Your task to perform on an android device: Open the calendar and show me this week's events? Image 0: 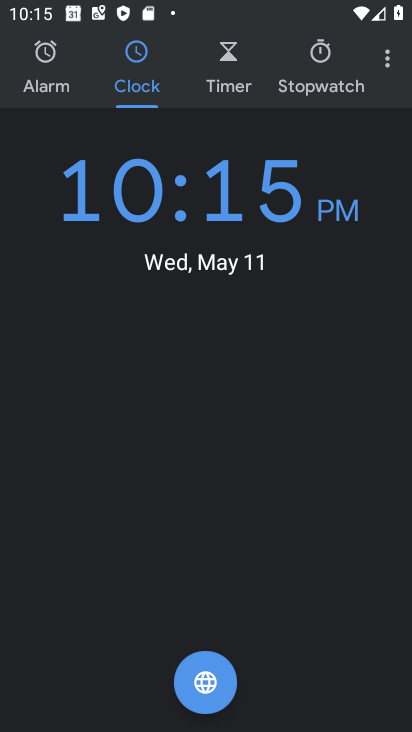
Step 0: press home button
Your task to perform on an android device: Open the calendar and show me this week's events? Image 1: 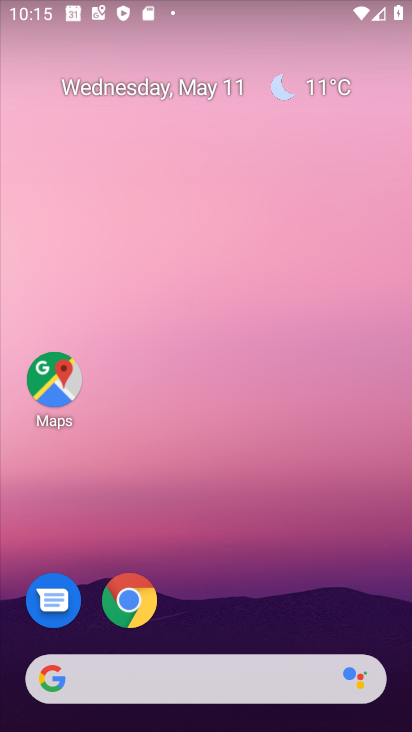
Step 1: drag from (305, 570) to (270, 184)
Your task to perform on an android device: Open the calendar and show me this week's events? Image 2: 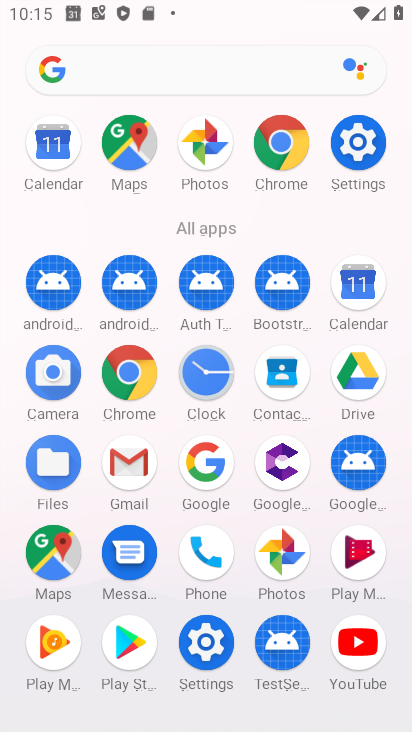
Step 2: click (361, 280)
Your task to perform on an android device: Open the calendar and show me this week's events? Image 3: 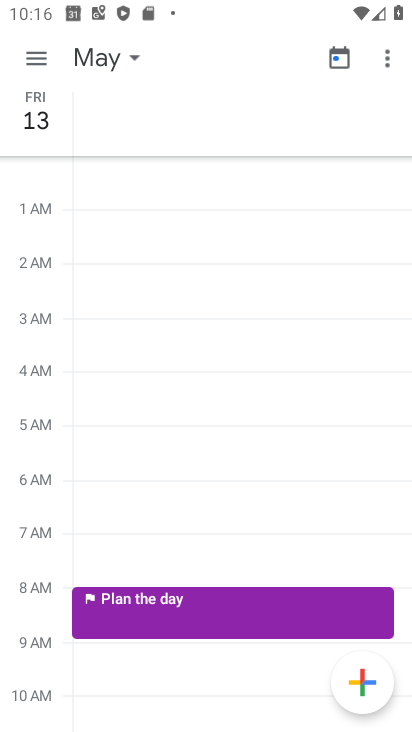
Step 3: click (43, 57)
Your task to perform on an android device: Open the calendar and show me this week's events? Image 4: 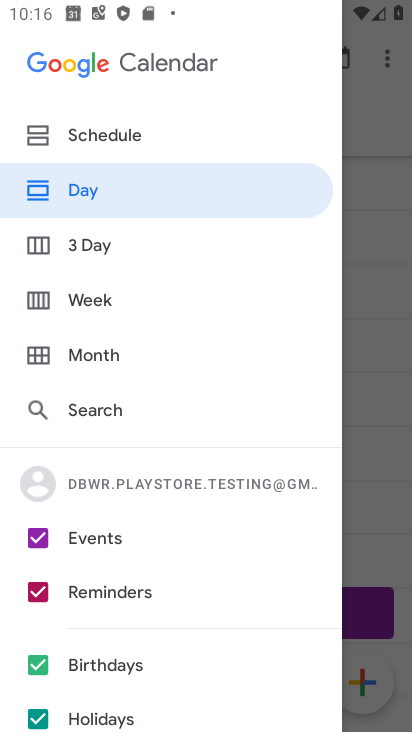
Step 4: click (73, 292)
Your task to perform on an android device: Open the calendar and show me this week's events? Image 5: 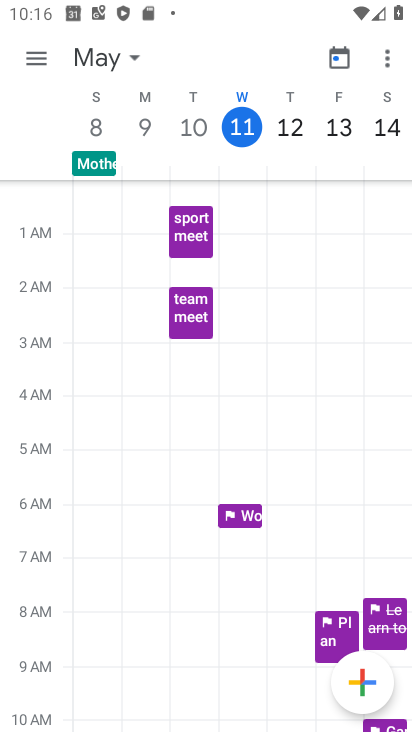
Step 5: task complete